Your task to perform on an android device: Go to battery settings Image 0: 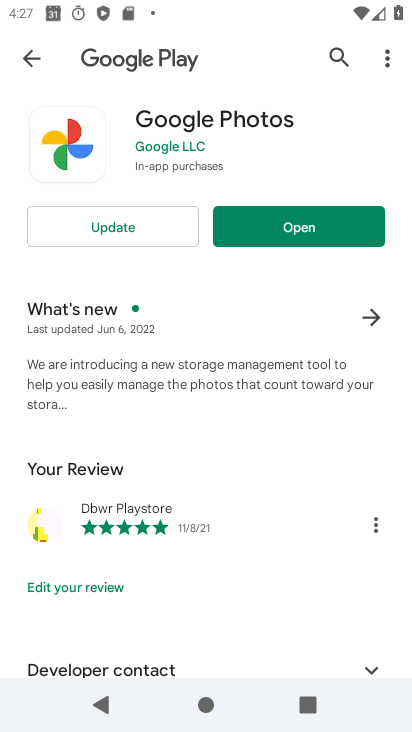
Step 0: drag from (210, 2) to (265, 624)
Your task to perform on an android device: Go to battery settings Image 1: 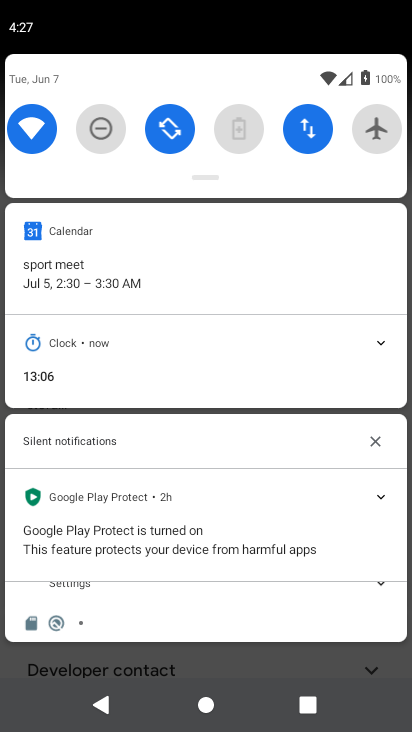
Step 1: click (231, 133)
Your task to perform on an android device: Go to battery settings Image 2: 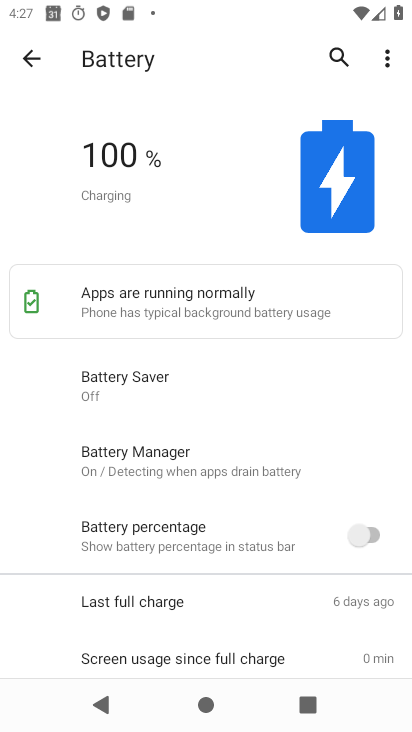
Step 2: task complete